Your task to perform on an android device: Clear the shopping cart on walmart. Add rayovac triple a to the cart on walmart, then select checkout. Image 0: 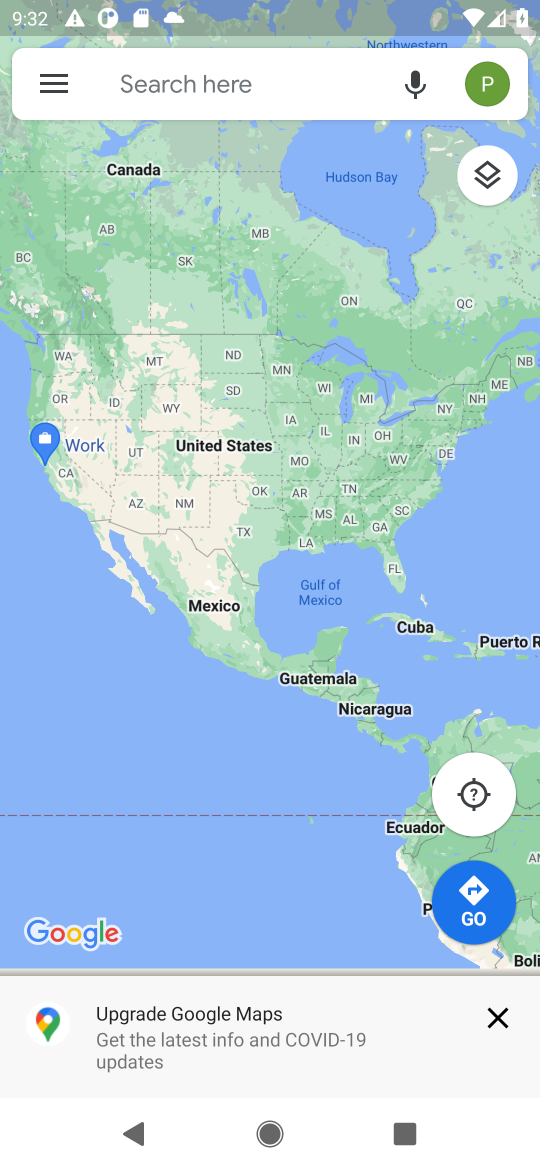
Step 0: press home button
Your task to perform on an android device: Clear the shopping cart on walmart. Add rayovac triple a to the cart on walmart, then select checkout. Image 1: 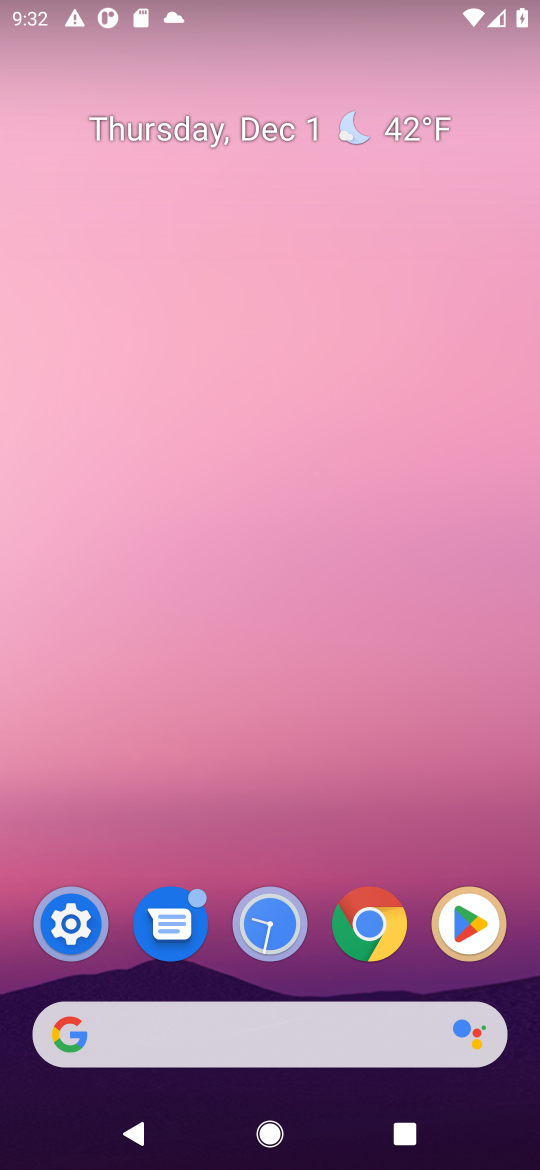
Step 1: click (297, 1021)
Your task to perform on an android device: Clear the shopping cart on walmart. Add rayovac triple a to the cart on walmart, then select checkout. Image 2: 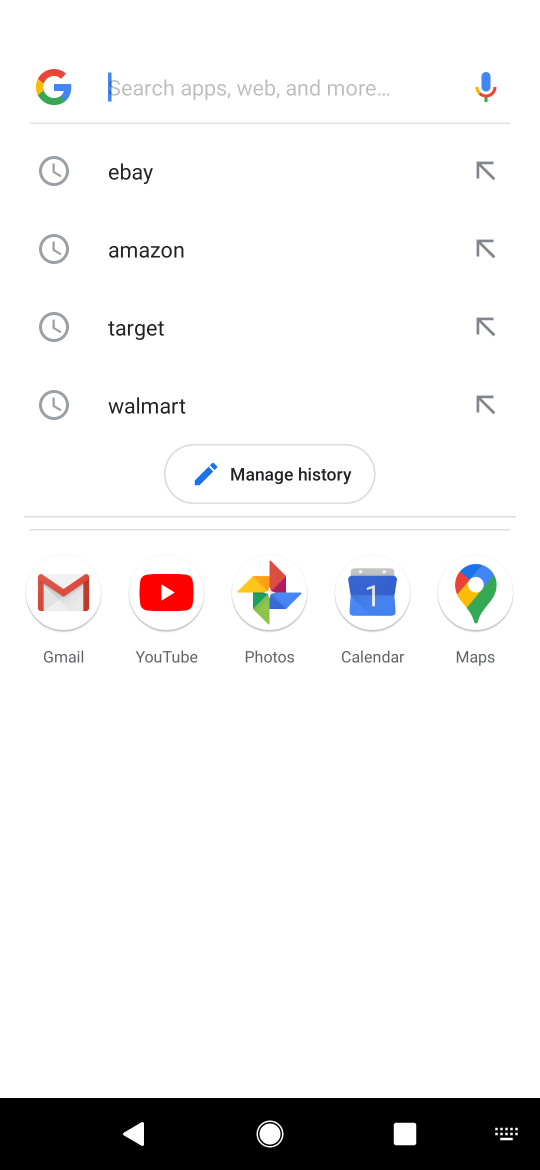
Step 2: type "walmart"
Your task to perform on an android device: Clear the shopping cart on walmart. Add rayovac triple a to the cart on walmart, then select checkout. Image 3: 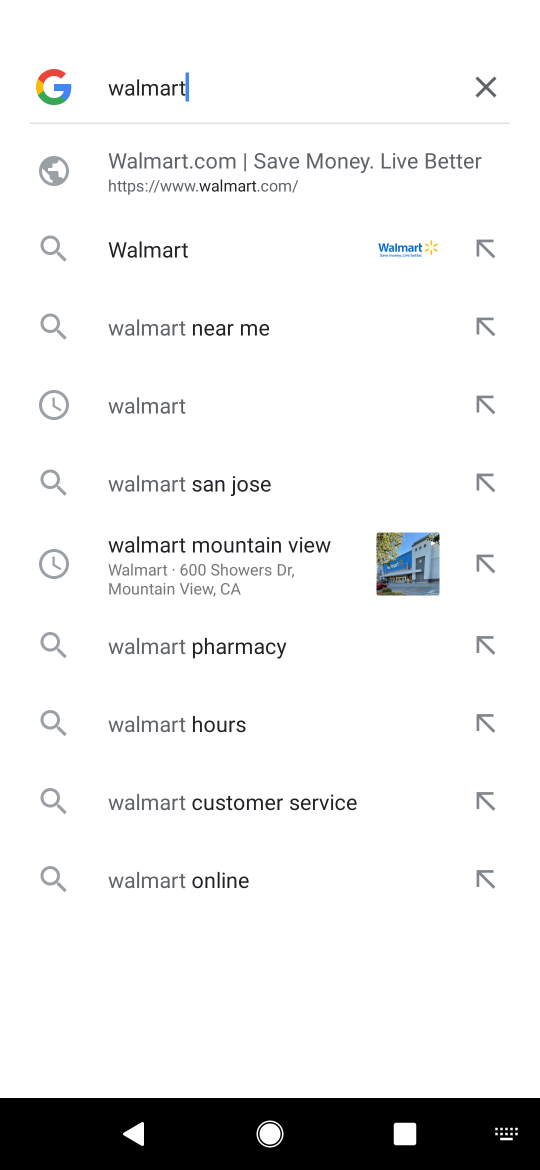
Step 3: click (142, 154)
Your task to perform on an android device: Clear the shopping cart on walmart. Add rayovac triple a to the cart on walmart, then select checkout. Image 4: 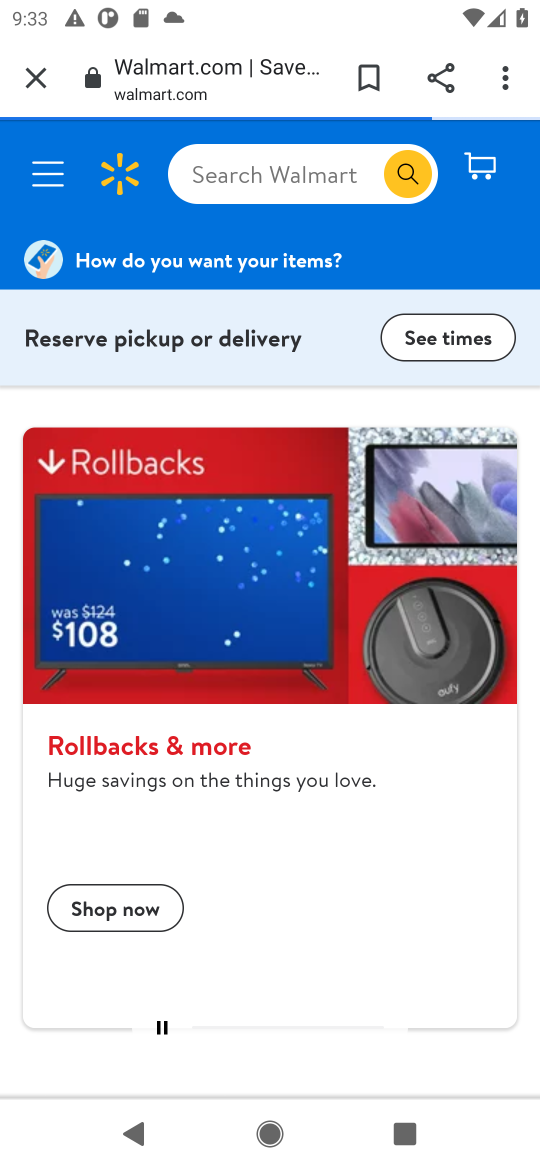
Step 4: click (268, 184)
Your task to perform on an android device: Clear the shopping cart on walmart. Add rayovac triple a to the cart on walmart, then select checkout. Image 5: 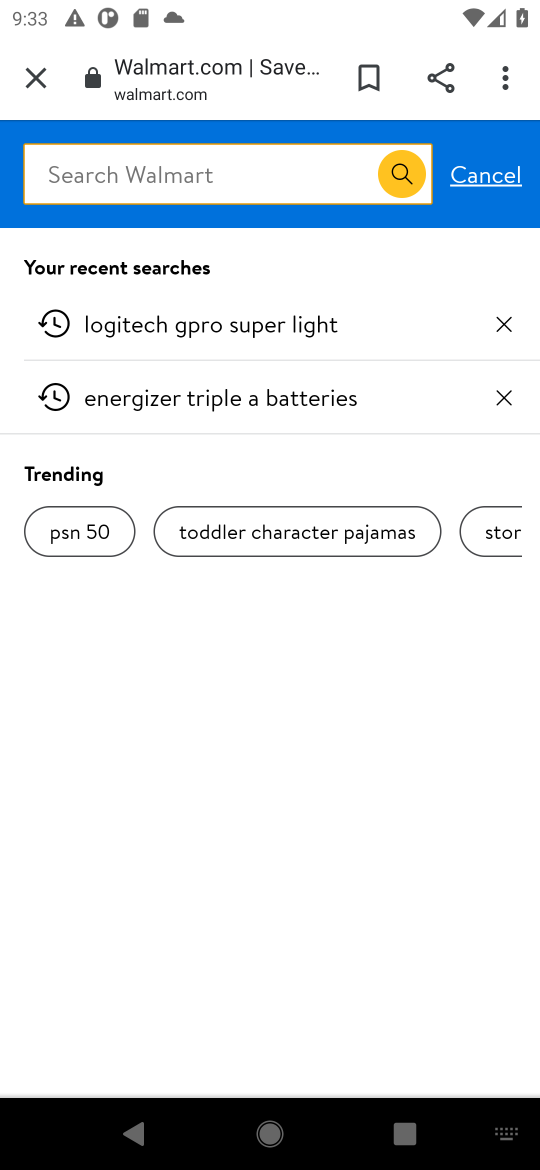
Step 5: type "rayovac triple"
Your task to perform on an android device: Clear the shopping cart on walmart. Add rayovac triple a to the cart on walmart, then select checkout. Image 6: 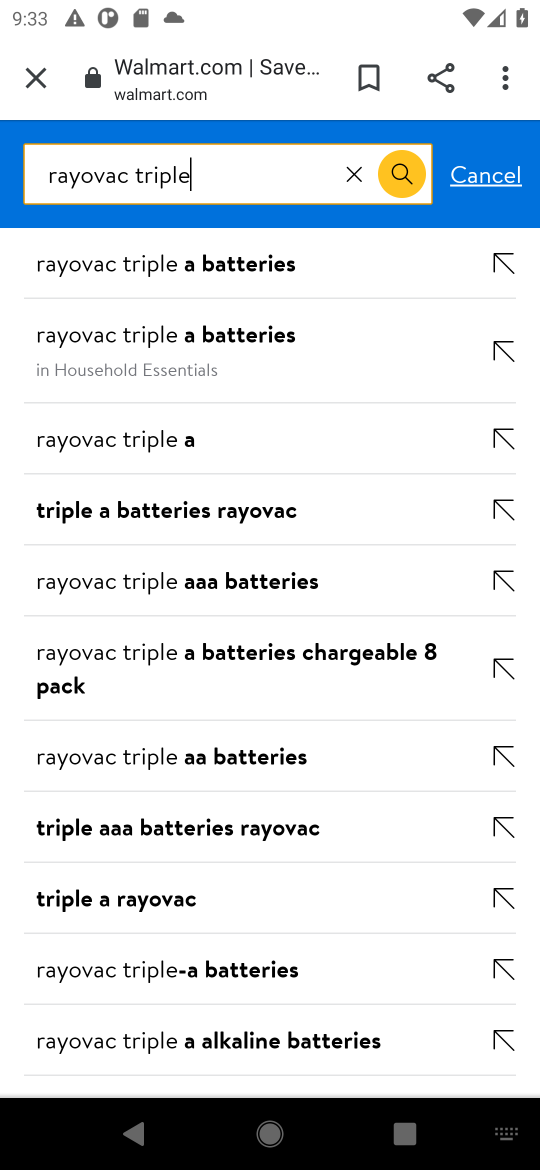
Step 6: click (239, 265)
Your task to perform on an android device: Clear the shopping cart on walmart. Add rayovac triple a to the cart on walmart, then select checkout. Image 7: 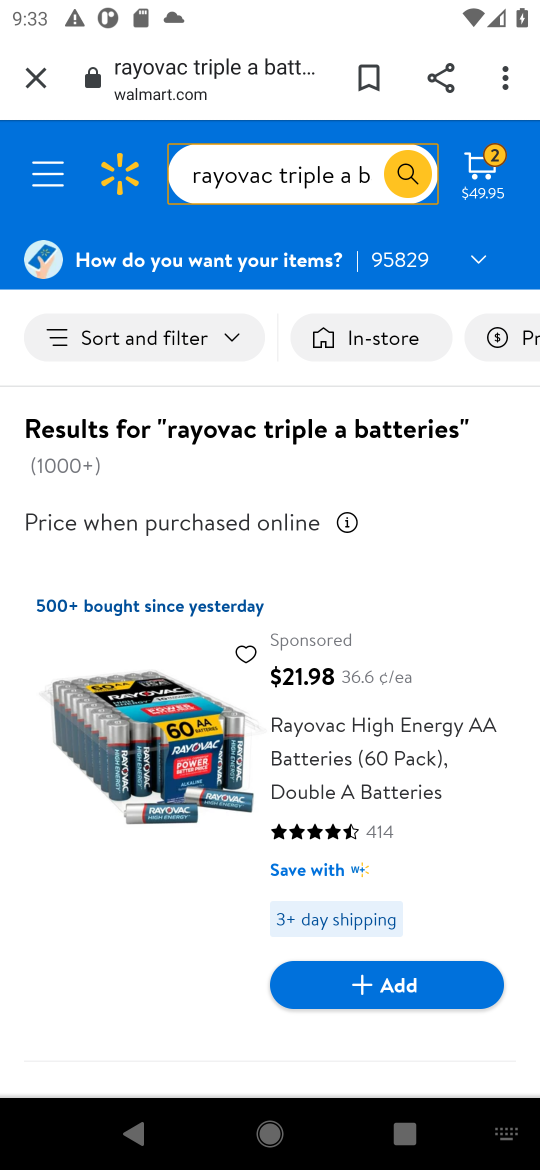
Step 7: click (347, 1017)
Your task to perform on an android device: Clear the shopping cart on walmart. Add rayovac triple a to the cart on walmart, then select checkout. Image 8: 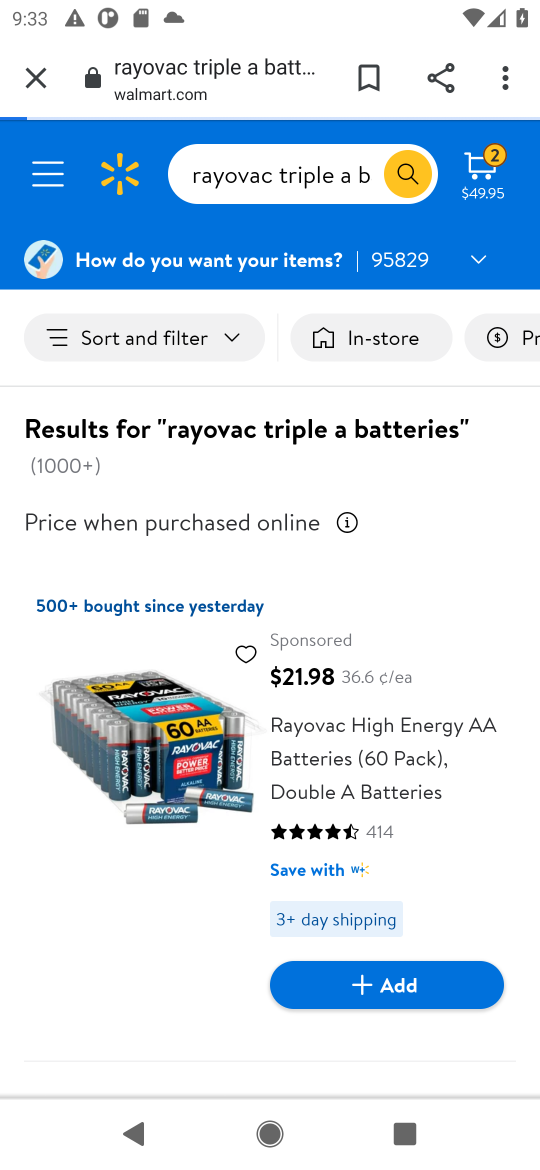
Step 8: click (348, 1007)
Your task to perform on an android device: Clear the shopping cart on walmart. Add rayovac triple a to the cart on walmart, then select checkout. Image 9: 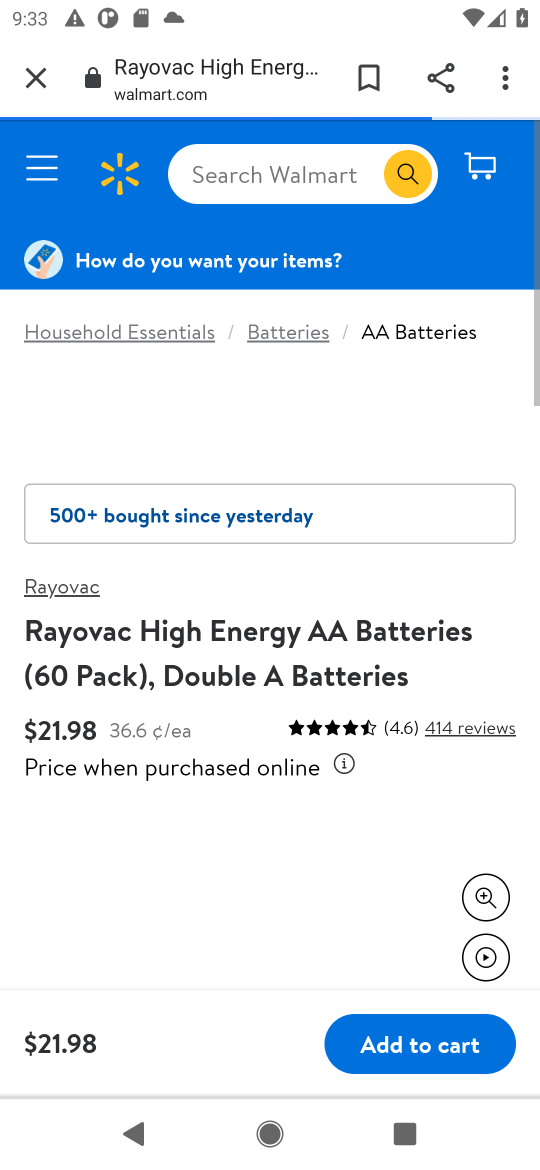
Step 9: task complete